Your task to perform on an android device: change alarm snooze length Image 0: 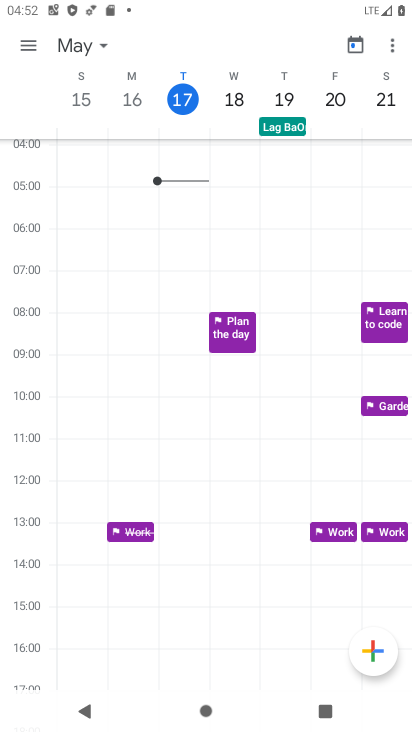
Step 0: press back button
Your task to perform on an android device: change alarm snooze length Image 1: 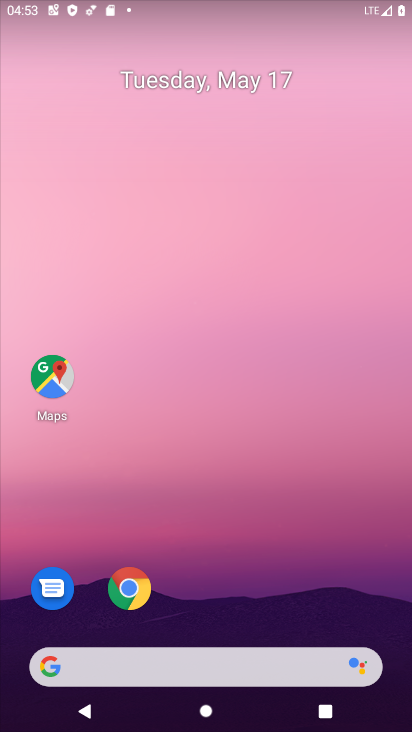
Step 1: drag from (235, 591) to (257, 196)
Your task to perform on an android device: change alarm snooze length Image 2: 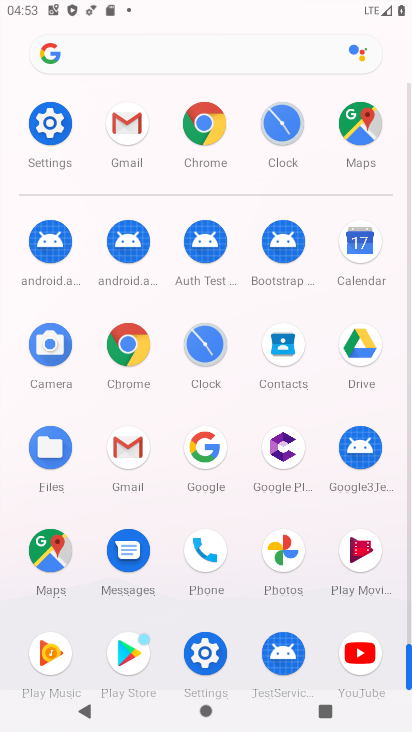
Step 2: drag from (172, 538) to (174, 407)
Your task to perform on an android device: change alarm snooze length Image 3: 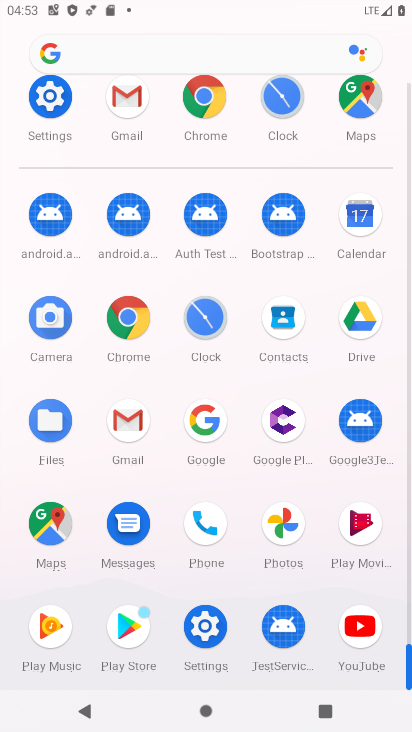
Step 3: click (283, 100)
Your task to perform on an android device: change alarm snooze length Image 4: 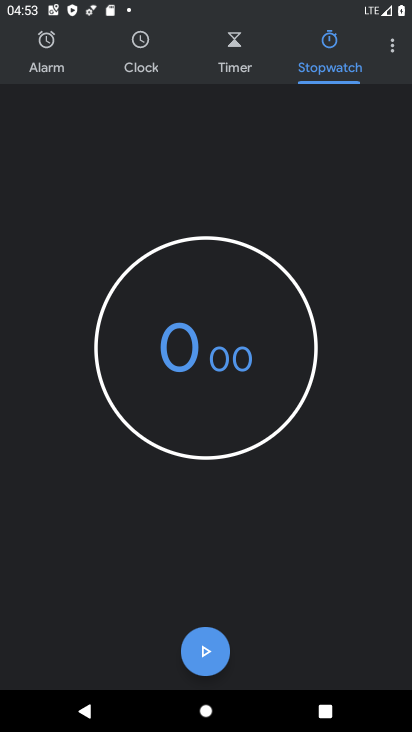
Step 4: click (391, 47)
Your task to perform on an android device: change alarm snooze length Image 5: 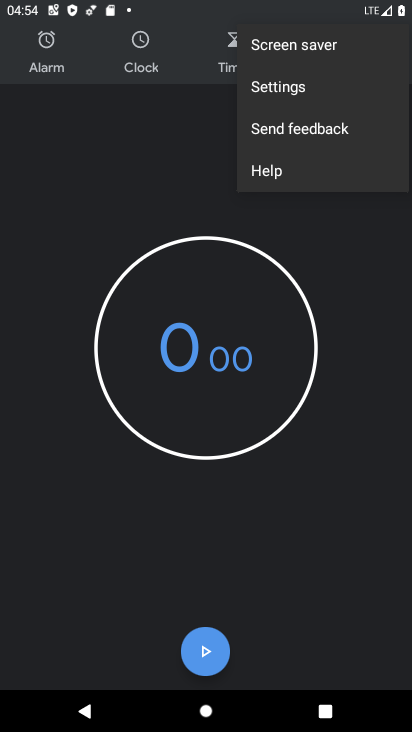
Step 5: click (290, 86)
Your task to perform on an android device: change alarm snooze length Image 6: 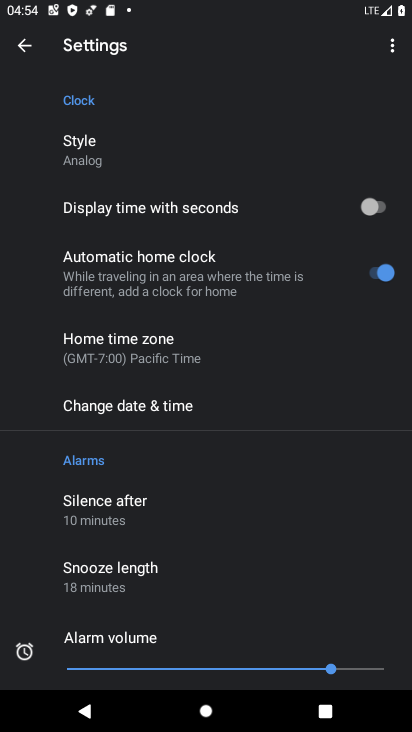
Step 6: click (137, 568)
Your task to perform on an android device: change alarm snooze length Image 7: 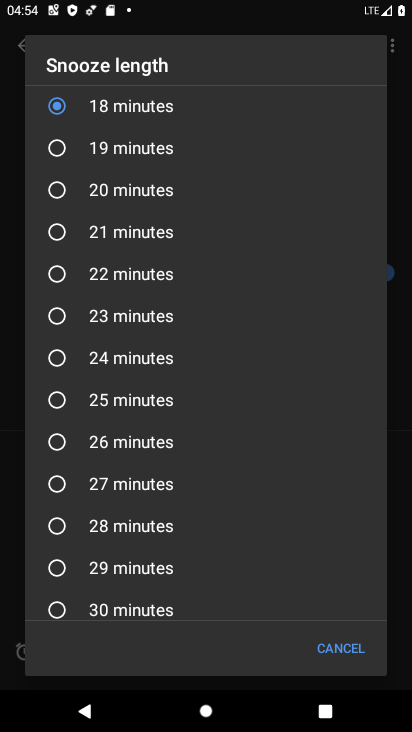
Step 7: click (46, 270)
Your task to perform on an android device: change alarm snooze length Image 8: 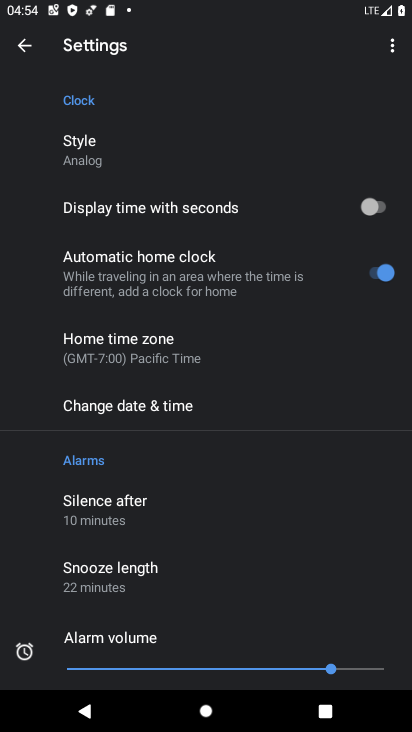
Step 8: task complete